Your task to perform on an android device: Show me recent news Image 0: 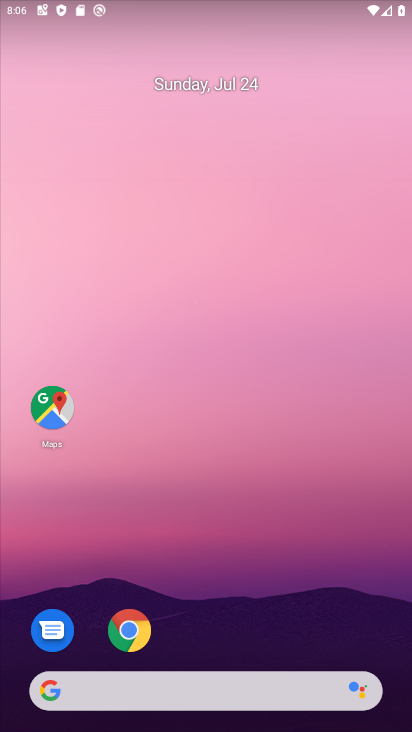
Step 0: drag from (212, 584) to (194, 160)
Your task to perform on an android device: Show me recent news Image 1: 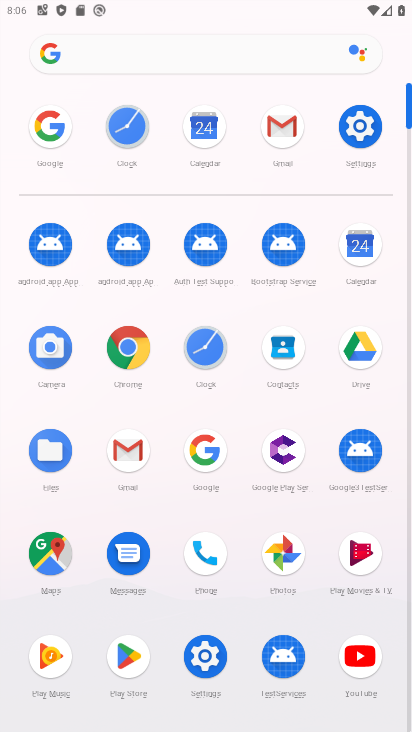
Step 1: click (213, 448)
Your task to perform on an android device: Show me recent news Image 2: 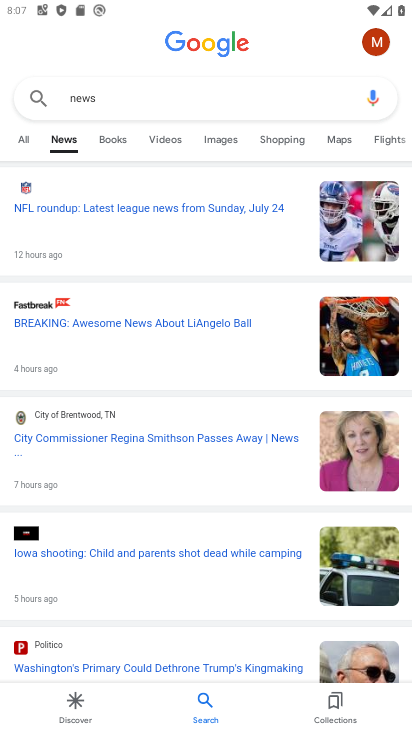
Step 2: task complete